Your task to perform on an android device: Go to accessibility settings Image 0: 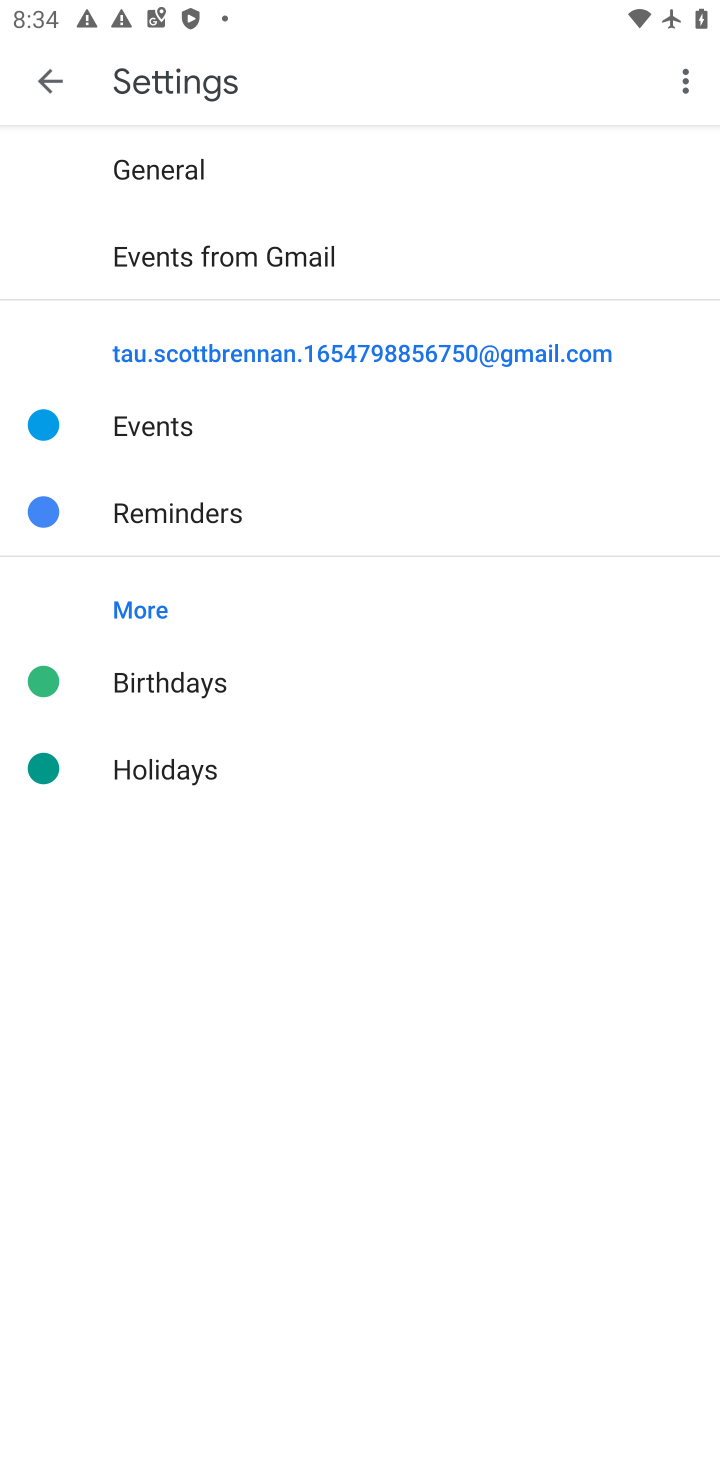
Step 0: press home button
Your task to perform on an android device: Go to accessibility settings Image 1: 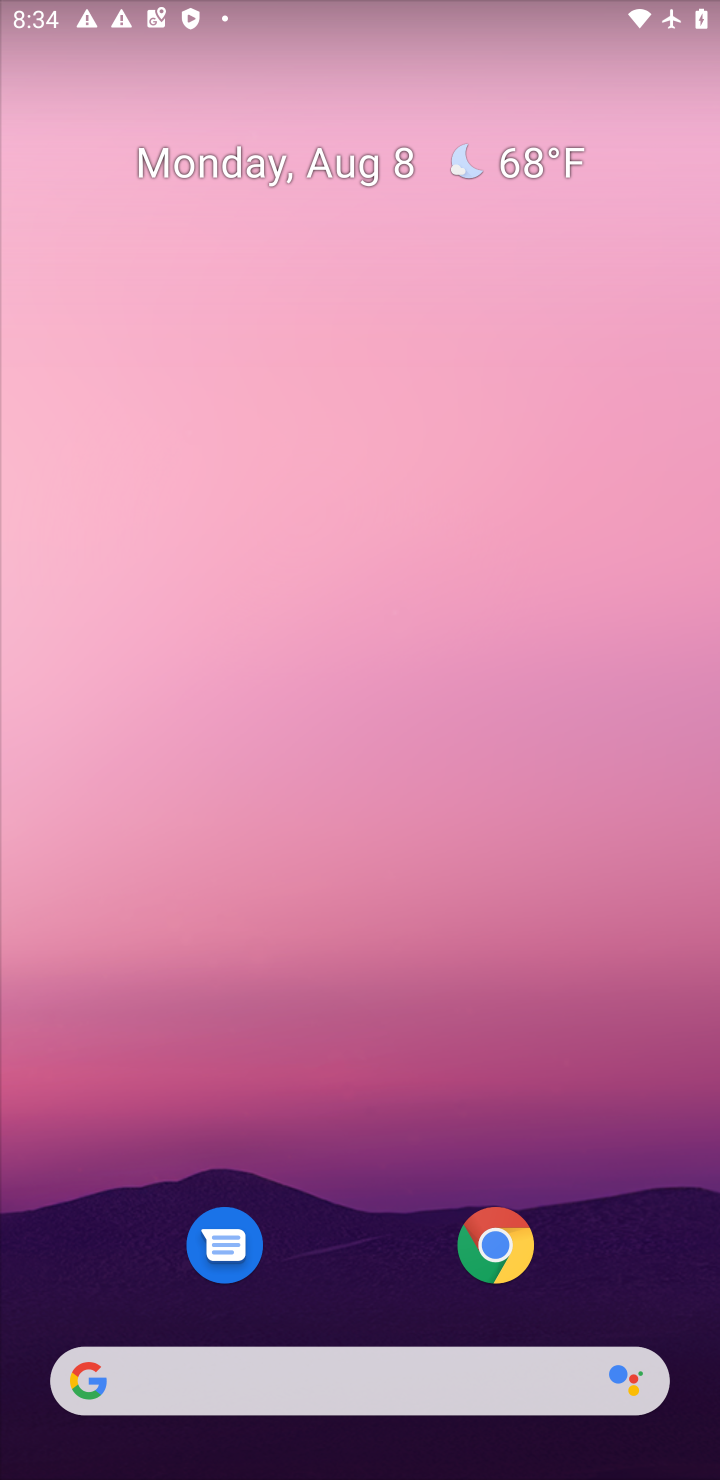
Step 1: drag from (360, 1091) to (5, 938)
Your task to perform on an android device: Go to accessibility settings Image 2: 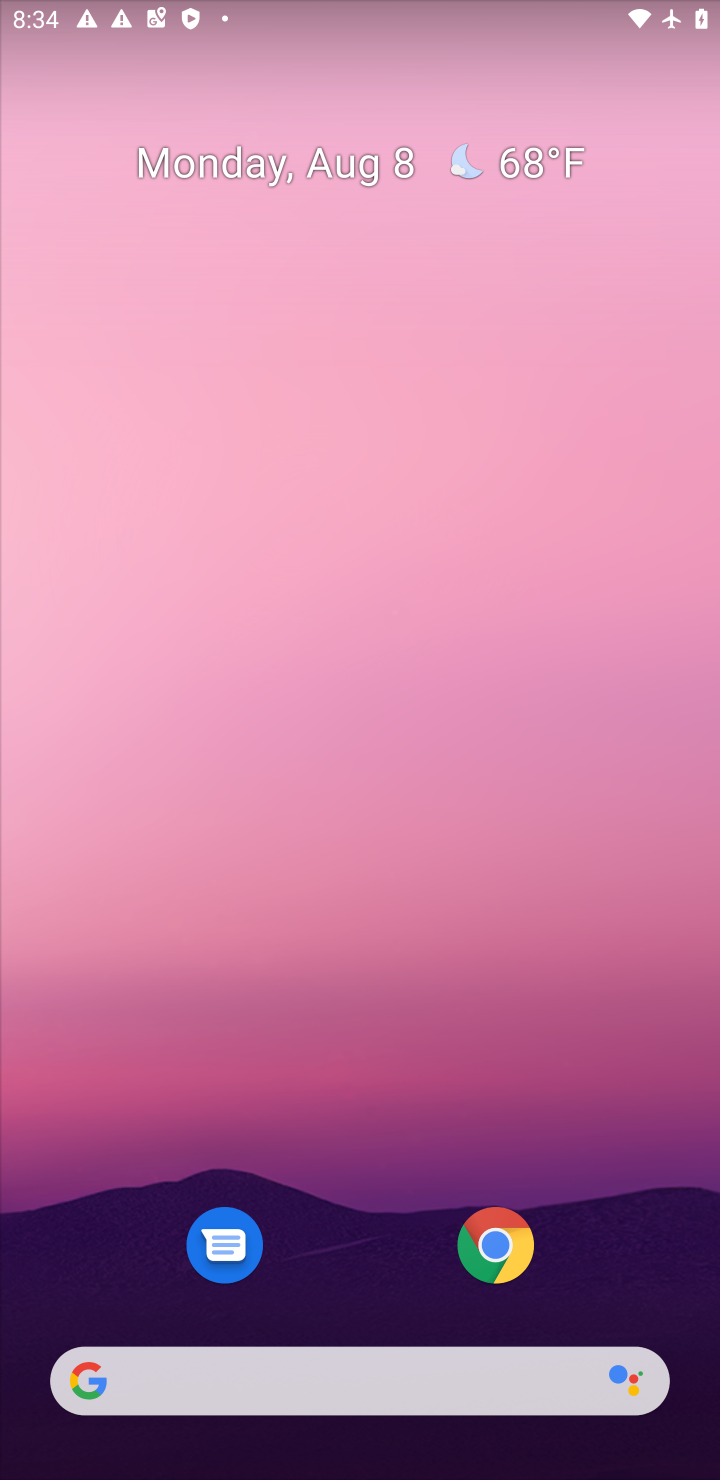
Step 2: drag from (346, 1330) to (404, 238)
Your task to perform on an android device: Go to accessibility settings Image 3: 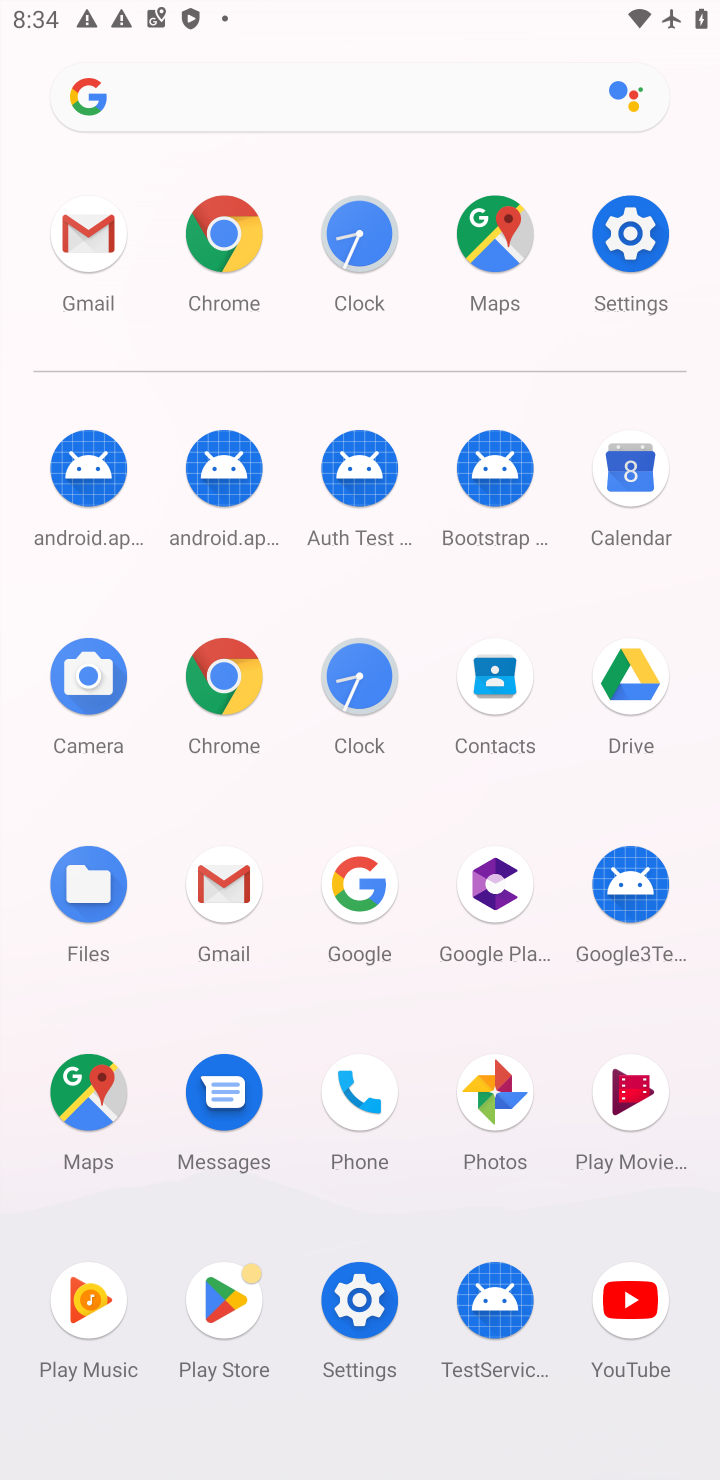
Step 3: click (361, 1335)
Your task to perform on an android device: Go to accessibility settings Image 4: 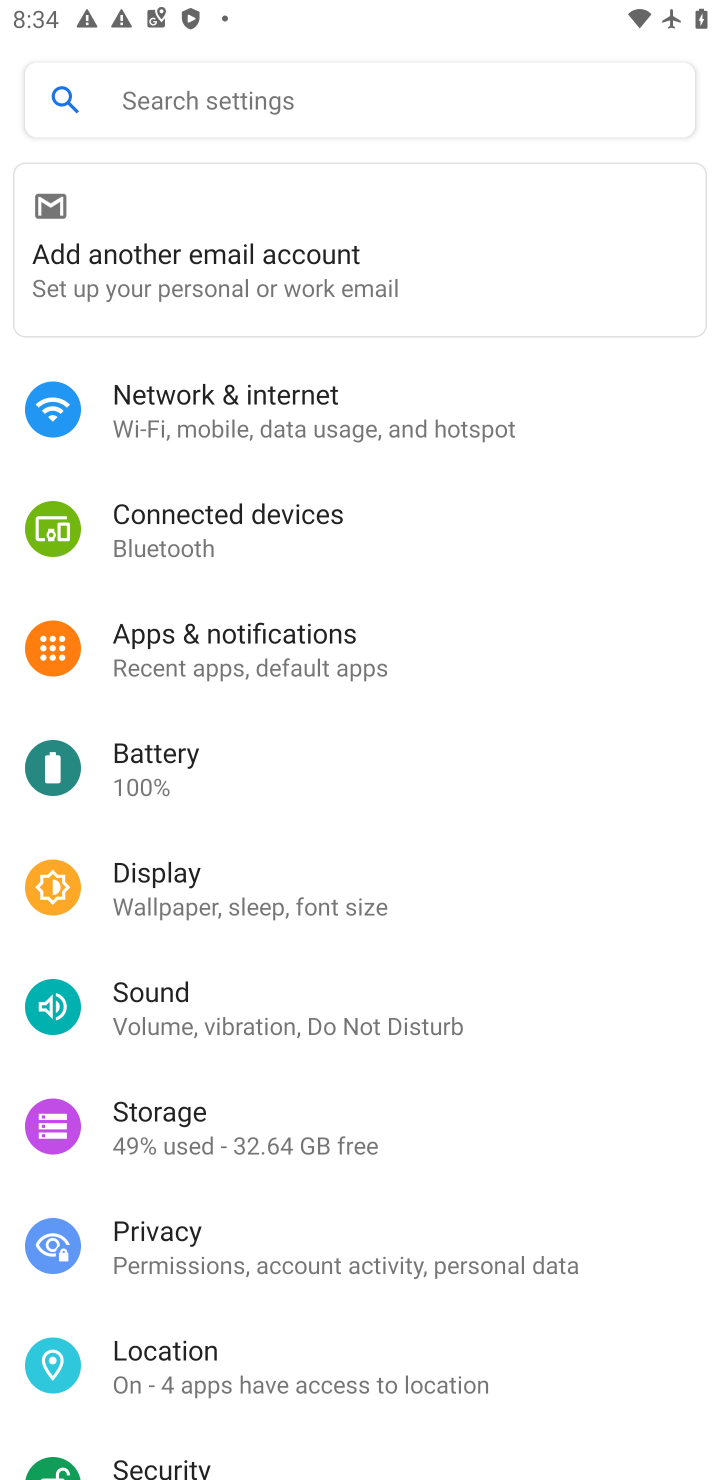
Step 4: drag from (252, 1238) to (338, 673)
Your task to perform on an android device: Go to accessibility settings Image 5: 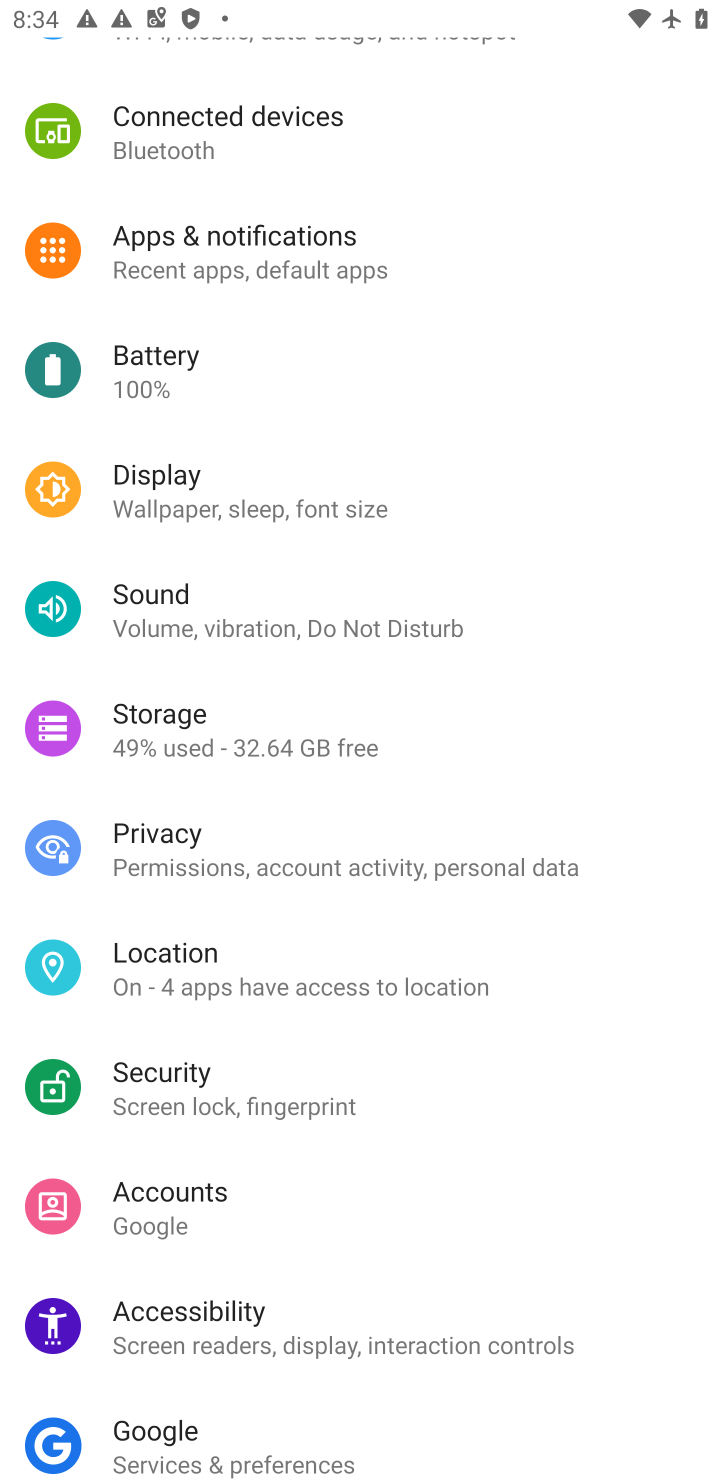
Step 5: click (178, 1323)
Your task to perform on an android device: Go to accessibility settings Image 6: 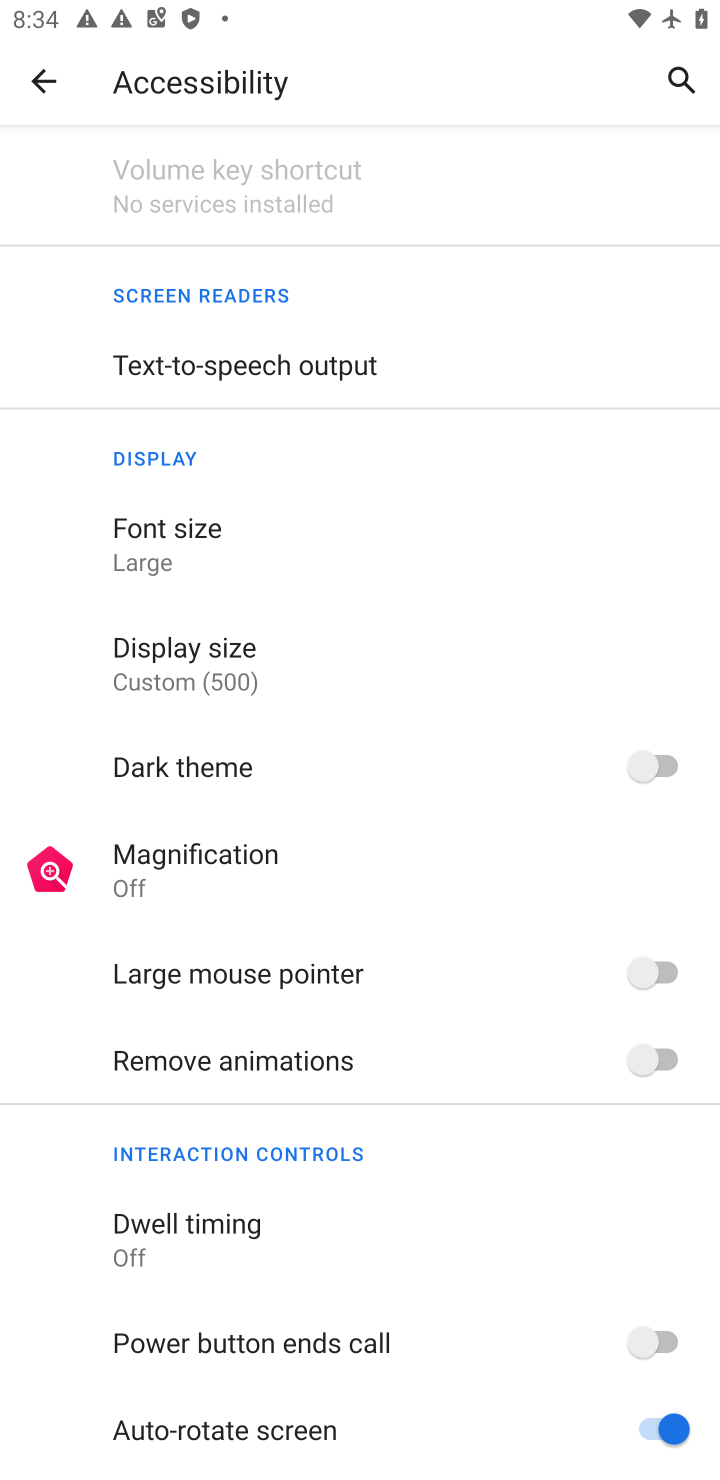
Step 6: task complete